Your task to perform on an android device: toggle airplane mode Image 0: 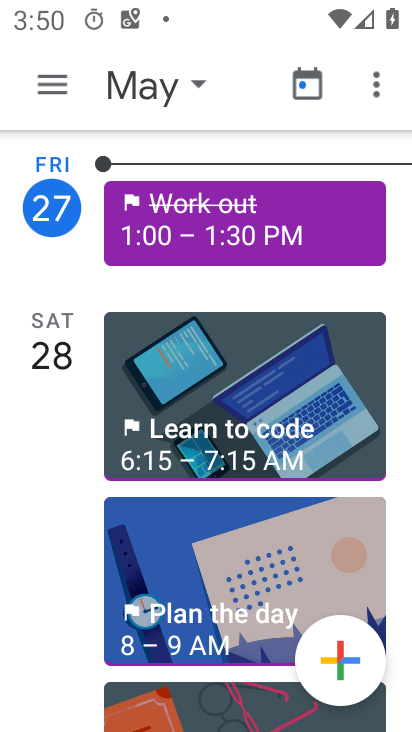
Step 0: press home button
Your task to perform on an android device: toggle airplane mode Image 1: 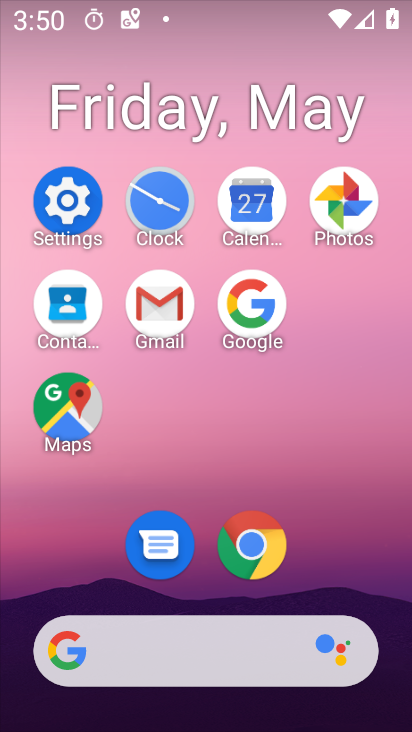
Step 1: click (46, 200)
Your task to perform on an android device: toggle airplane mode Image 2: 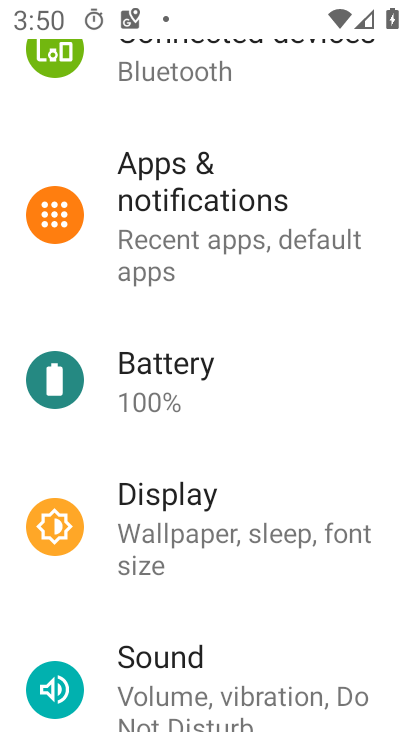
Step 2: drag from (320, 231) to (373, 705)
Your task to perform on an android device: toggle airplane mode Image 3: 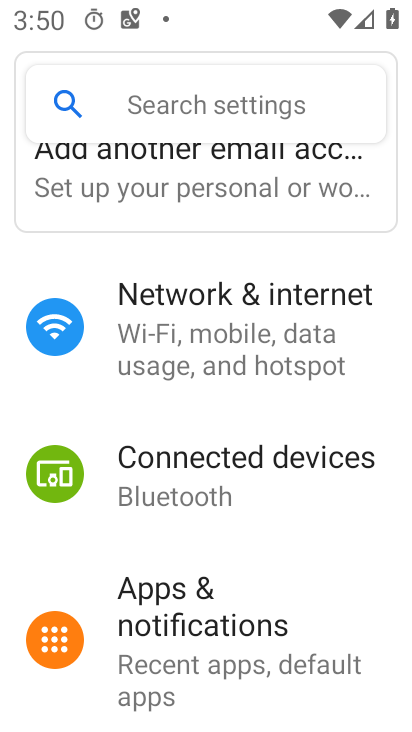
Step 3: click (343, 327)
Your task to perform on an android device: toggle airplane mode Image 4: 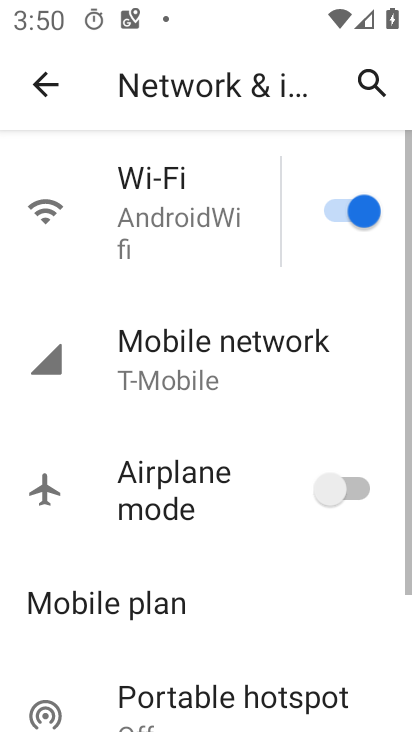
Step 4: click (355, 488)
Your task to perform on an android device: toggle airplane mode Image 5: 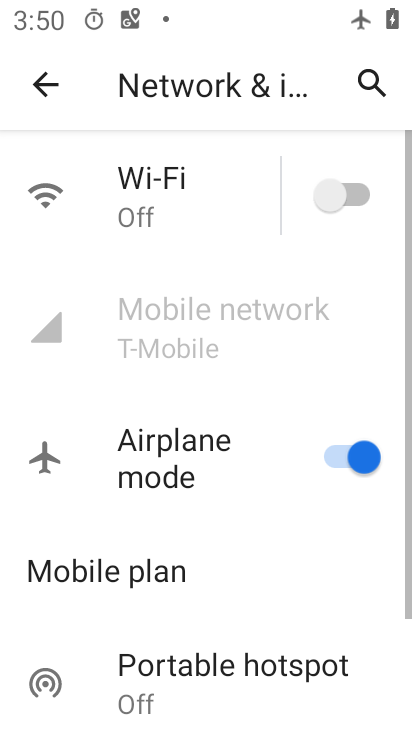
Step 5: task complete